Your task to perform on an android device: Open maps Image 0: 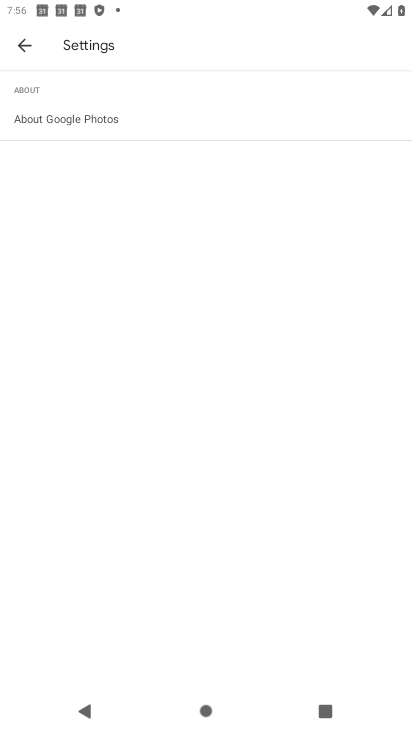
Step 0: press home button
Your task to perform on an android device: Open maps Image 1: 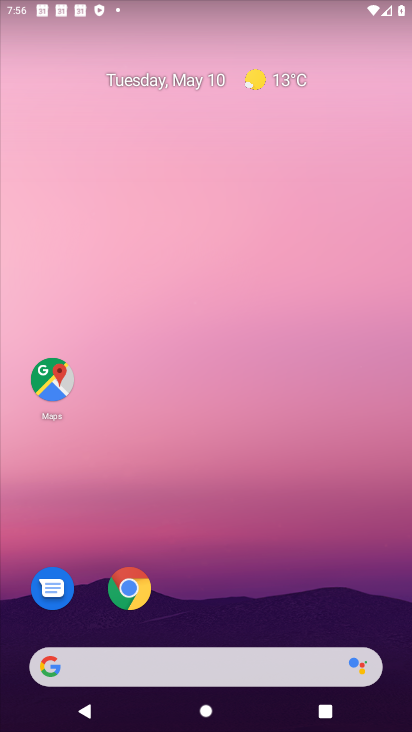
Step 1: click (65, 385)
Your task to perform on an android device: Open maps Image 2: 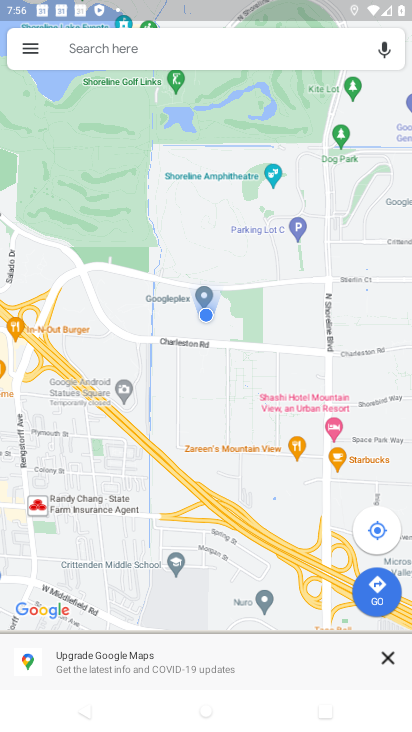
Step 2: task complete